Your task to perform on an android device: Open wifi settings Image 0: 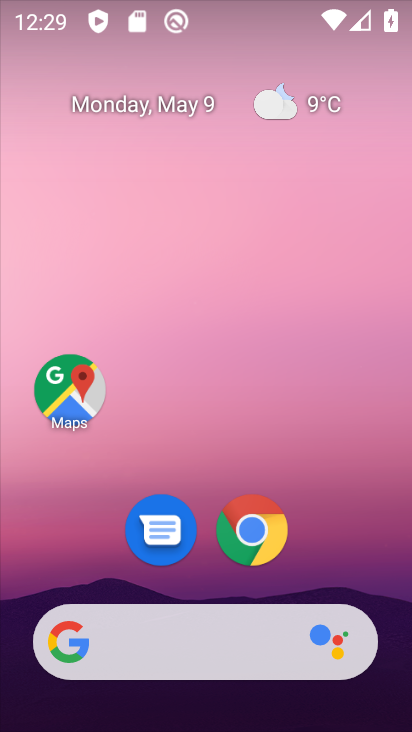
Step 0: drag from (322, 529) to (345, 199)
Your task to perform on an android device: Open wifi settings Image 1: 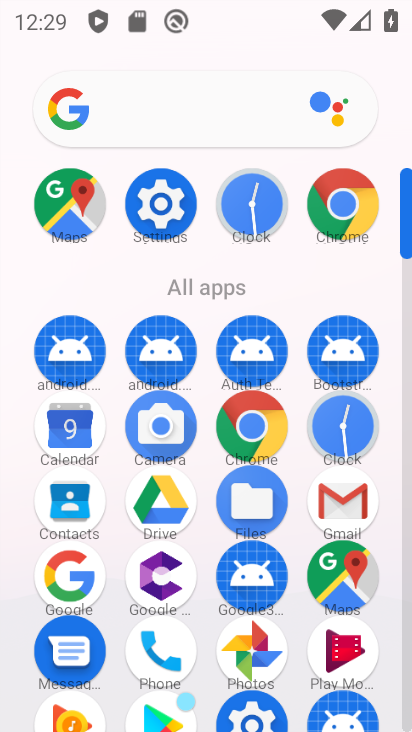
Step 1: click (167, 189)
Your task to perform on an android device: Open wifi settings Image 2: 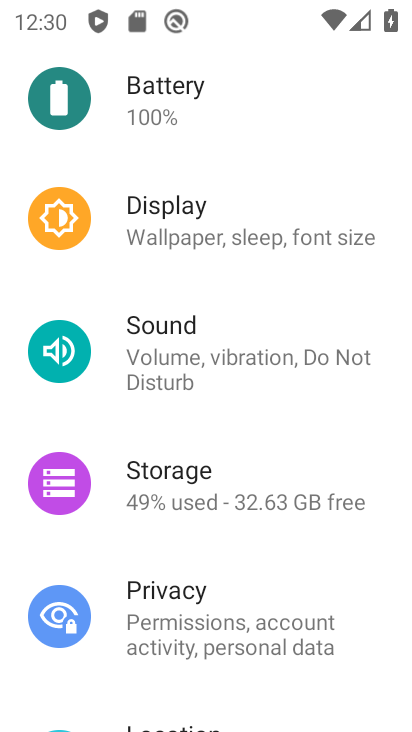
Step 2: drag from (262, 218) to (259, 485)
Your task to perform on an android device: Open wifi settings Image 3: 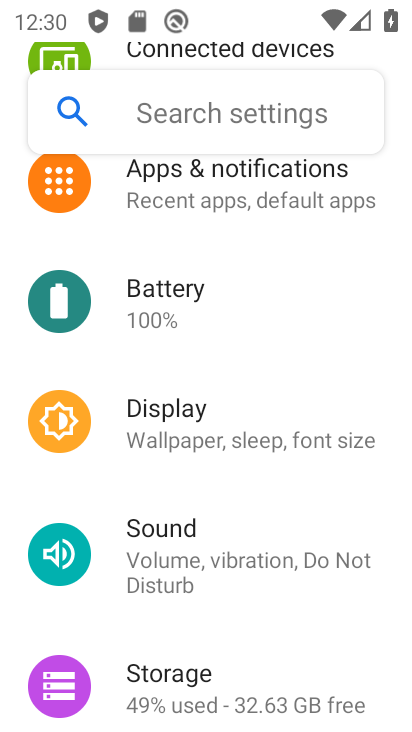
Step 3: drag from (257, 239) to (225, 536)
Your task to perform on an android device: Open wifi settings Image 4: 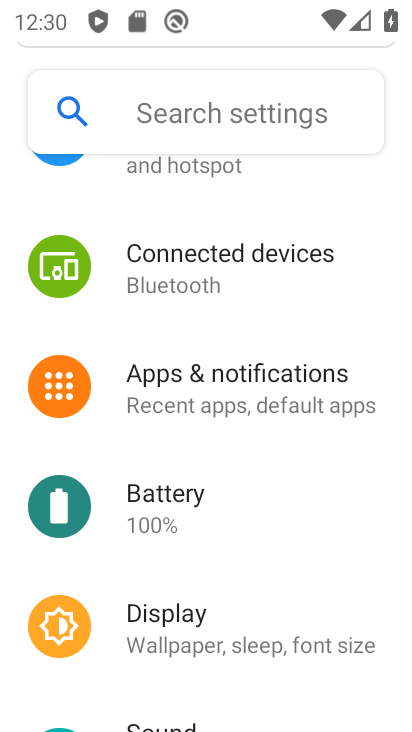
Step 4: drag from (265, 158) to (254, 629)
Your task to perform on an android device: Open wifi settings Image 5: 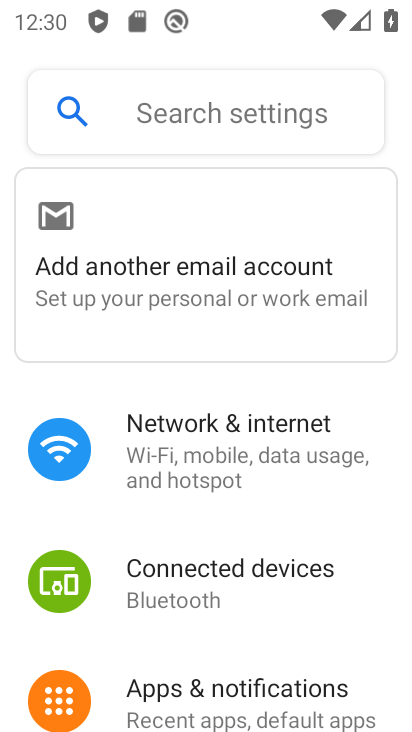
Step 5: click (245, 416)
Your task to perform on an android device: Open wifi settings Image 6: 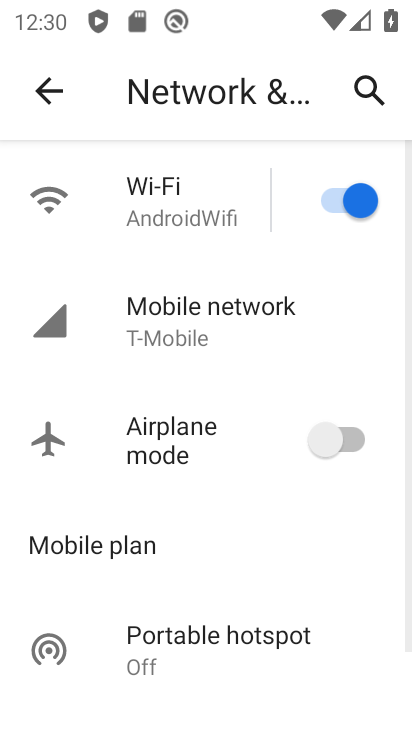
Step 6: click (201, 194)
Your task to perform on an android device: Open wifi settings Image 7: 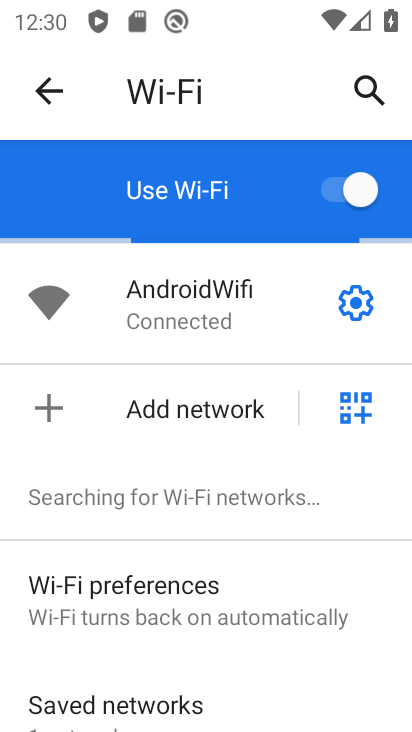
Step 7: task complete